Your task to perform on an android device: turn on data saver in the chrome app Image 0: 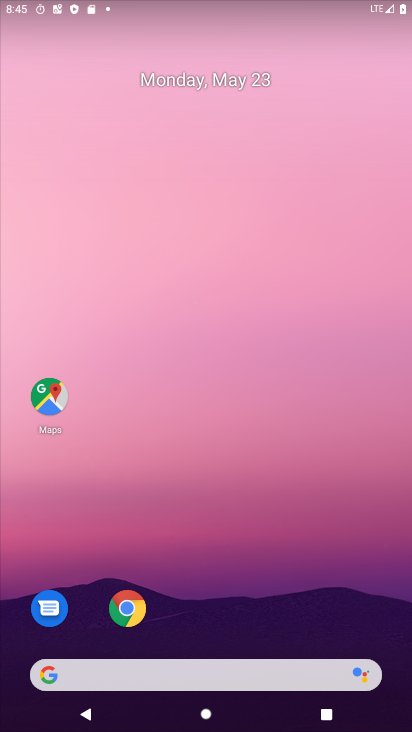
Step 0: click (122, 608)
Your task to perform on an android device: turn on data saver in the chrome app Image 1: 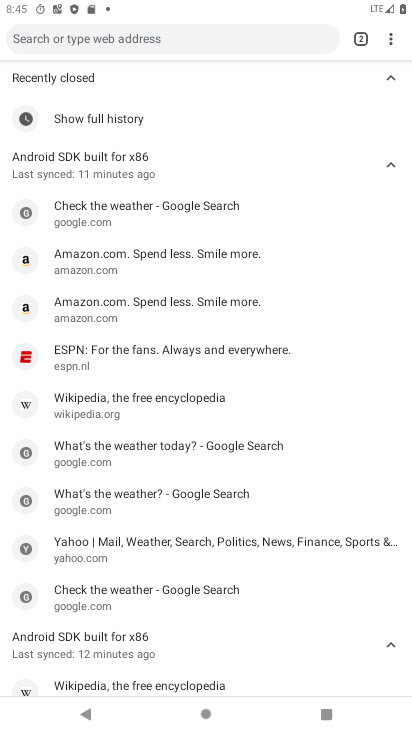
Step 1: drag from (386, 46) to (261, 330)
Your task to perform on an android device: turn on data saver in the chrome app Image 2: 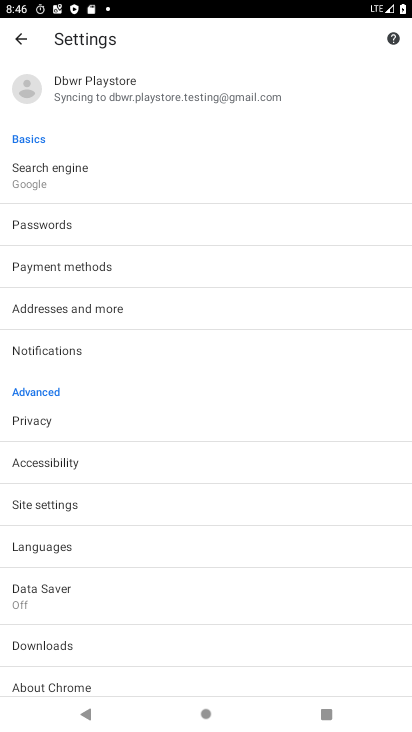
Step 2: click (71, 599)
Your task to perform on an android device: turn on data saver in the chrome app Image 3: 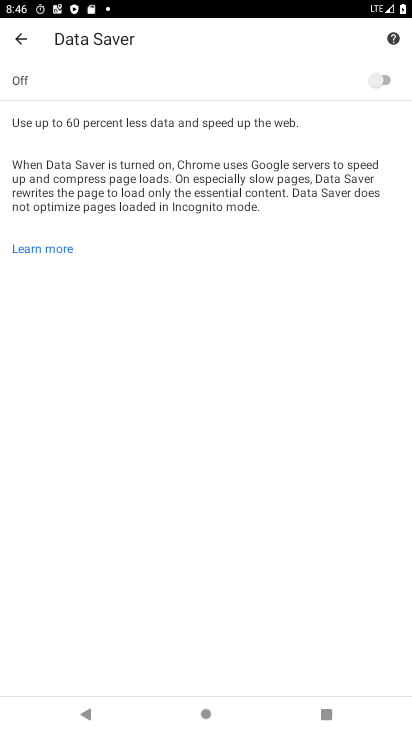
Step 3: click (383, 86)
Your task to perform on an android device: turn on data saver in the chrome app Image 4: 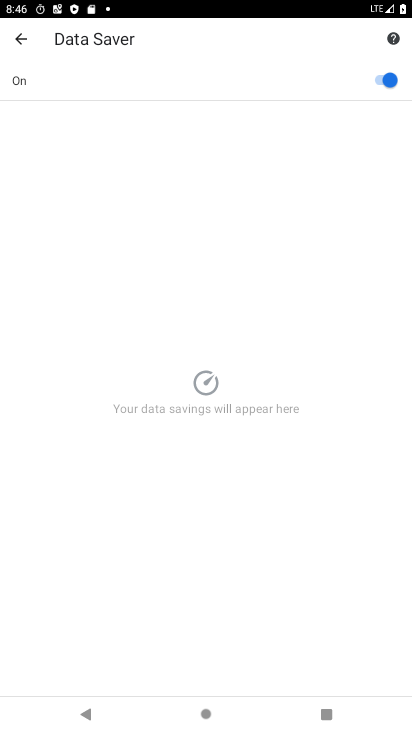
Step 4: task complete